Your task to perform on an android device: Open Google Chrome and click the shortcut for Amazon.com Image 0: 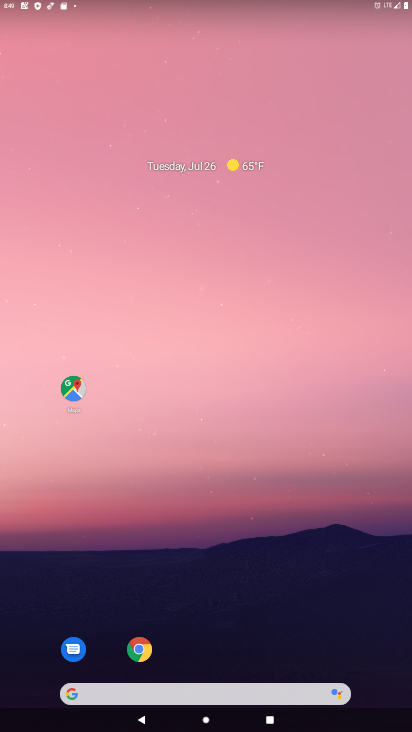
Step 0: click (141, 649)
Your task to perform on an android device: Open Google Chrome and click the shortcut for Amazon.com Image 1: 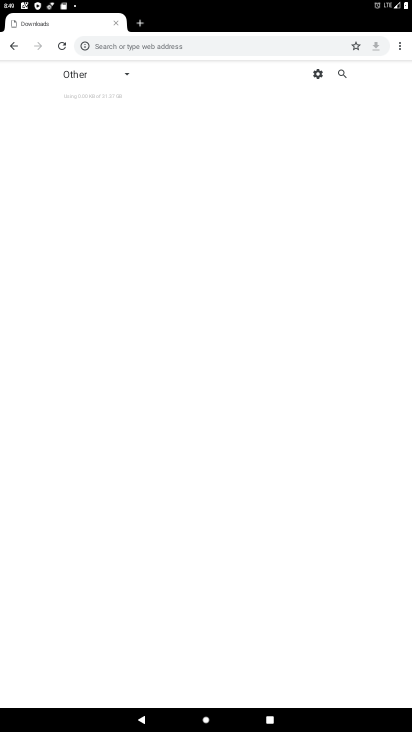
Step 1: click (249, 46)
Your task to perform on an android device: Open Google Chrome and click the shortcut for Amazon.com Image 2: 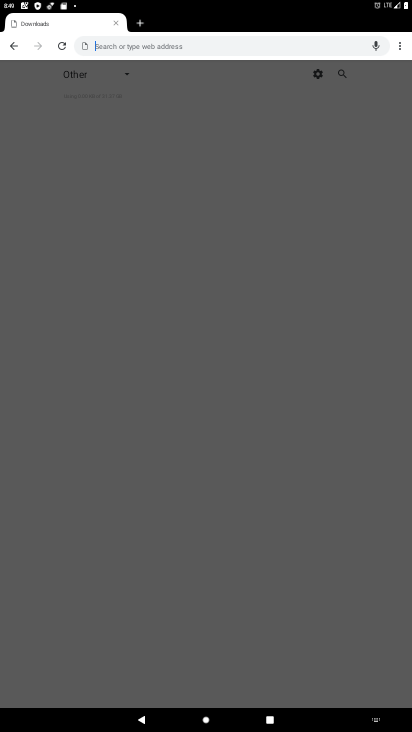
Step 2: type "Amazon.com"
Your task to perform on an android device: Open Google Chrome and click the shortcut for Amazon.com Image 3: 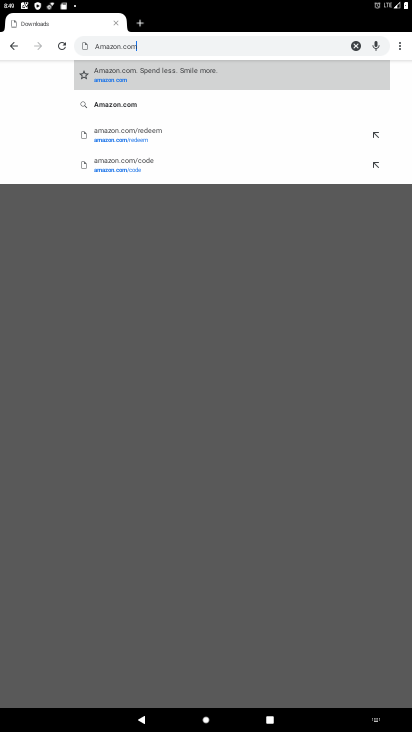
Step 3: click (132, 104)
Your task to perform on an android device: Open Google Chrome and click the shortcut for Amazon.com Image 4: 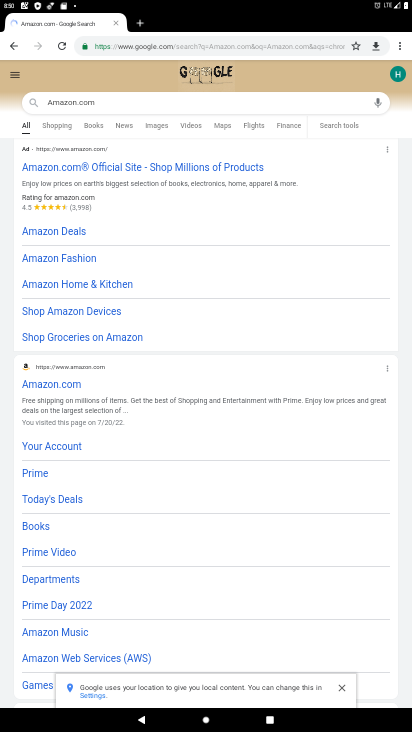
Step 4: click (59, 382)
Your task to perform on an android device: Open Google Chrome and click the shortcut for Amazon.com Image 5: 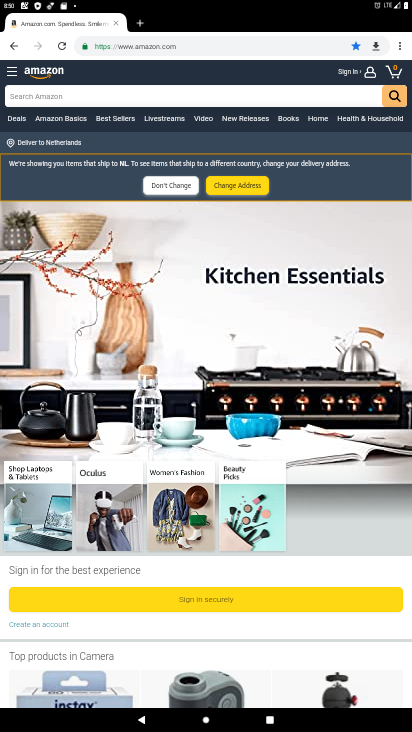
Step 5: click (399, 43)
Your task to perform on an android device: Open Google Chrome and click the shortcut for Amazon.com Image 6: 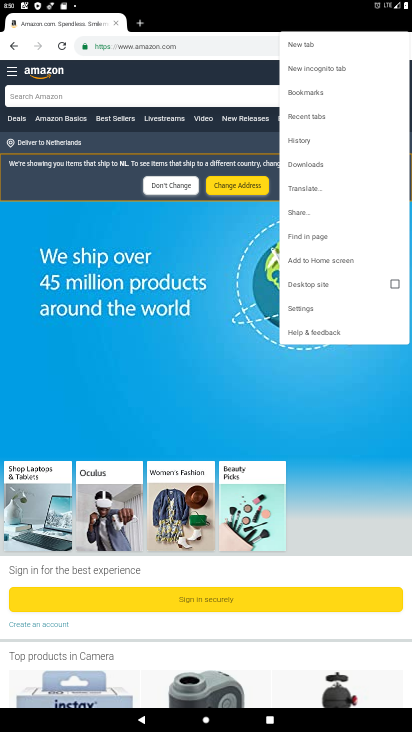
Step 6: click (319, 258)
Your task to perform on an android device: Open Google Chrome and click the shortcut for Amazon.com Image 7: 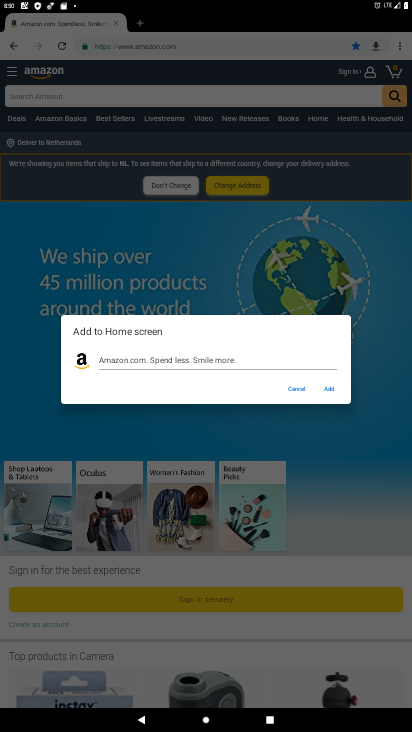
Step 7: click (331, 389)
Your task to perform on an android device: Open Google Chrome and click the shortcut for Amazon.com Image 8: 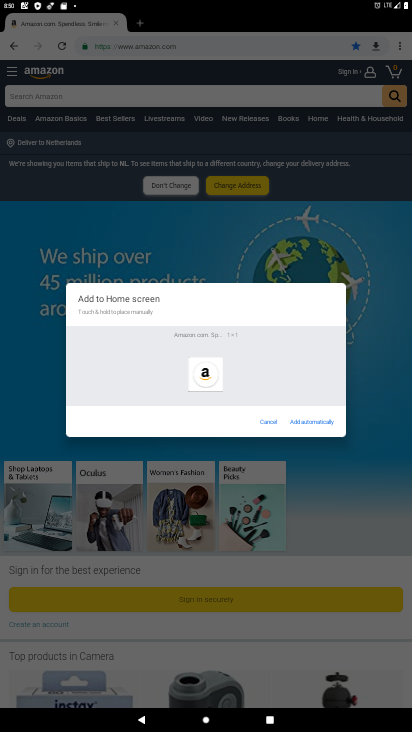
Step 8: click (314, 420)
Your task to perform on an android device: Open Google Chrome and click the shortcut for Amazon.com Image 9: 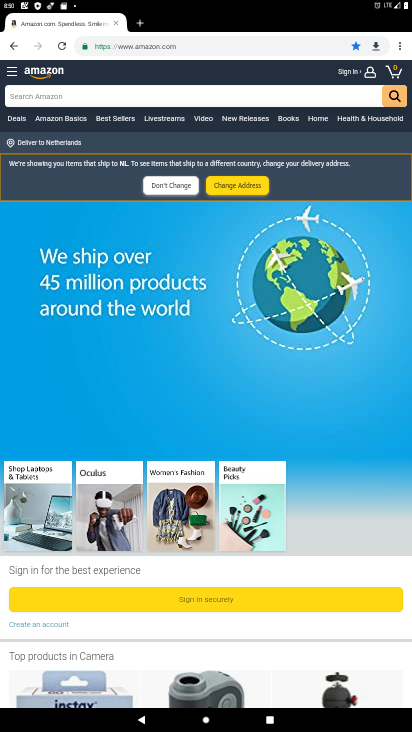
Step 9: task complete